Your task to perform on an android device: Go to network settings Image 0: 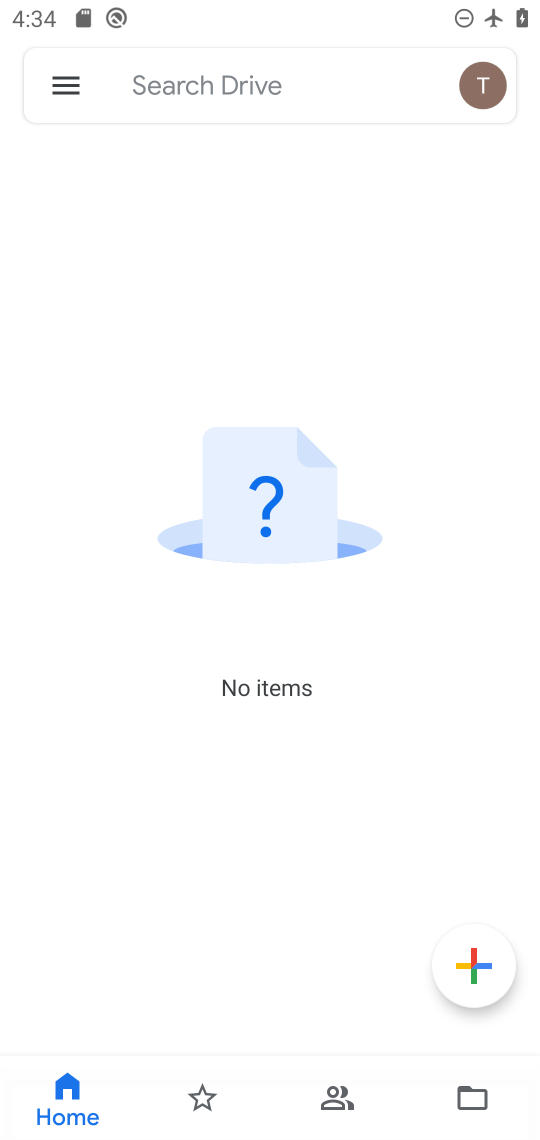
Step 0: press home button
Your task to perform on an android device: Go to network settings Image 1: 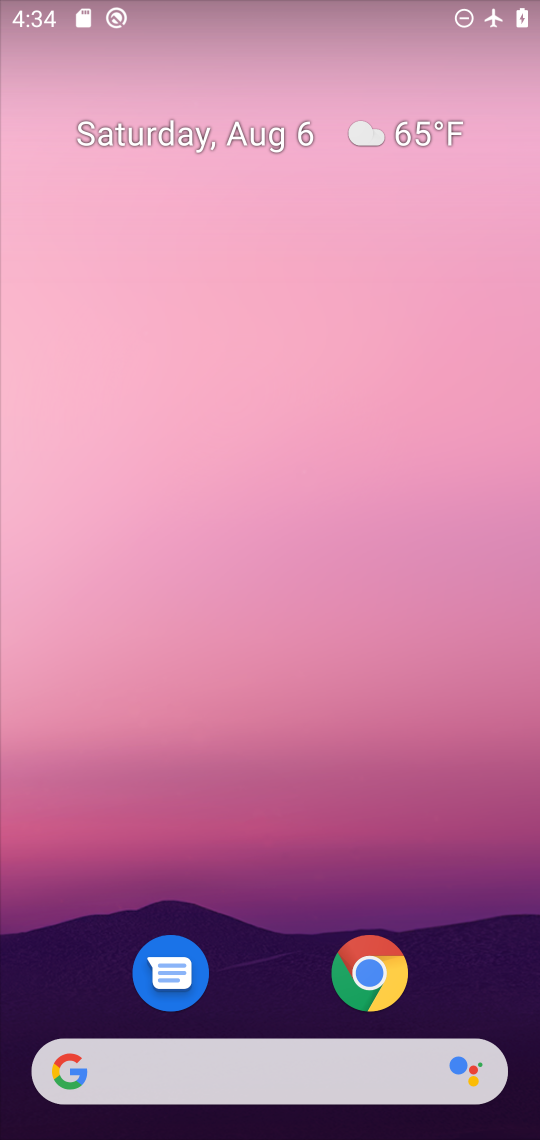
Step 1: drag from (270, 973) to (385, 174)
Your task to perform on an android device: Go to network settings Image 2: 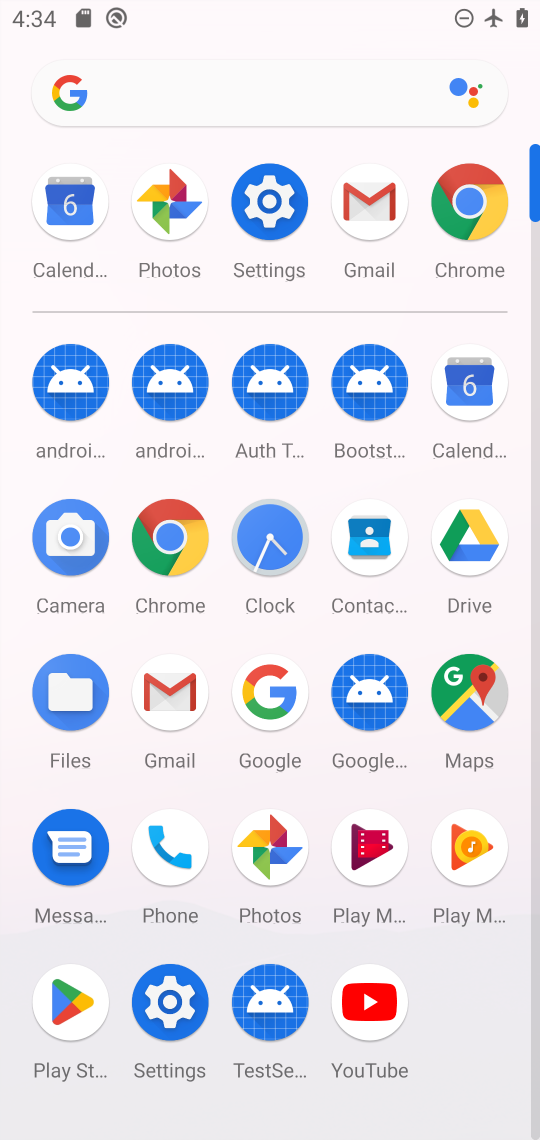
Step 2: click (149, 1000)
Your task to perform on an android device: Go to network settings Image 3: 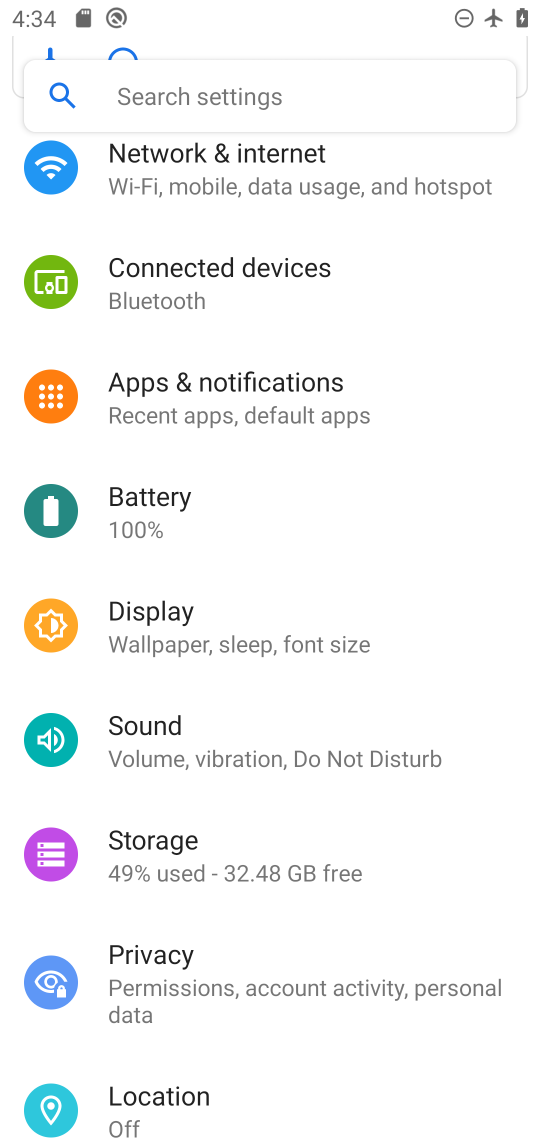
Step 3: click (166, 185)
Your task to perform on an android device: Go to network settings Image 4: 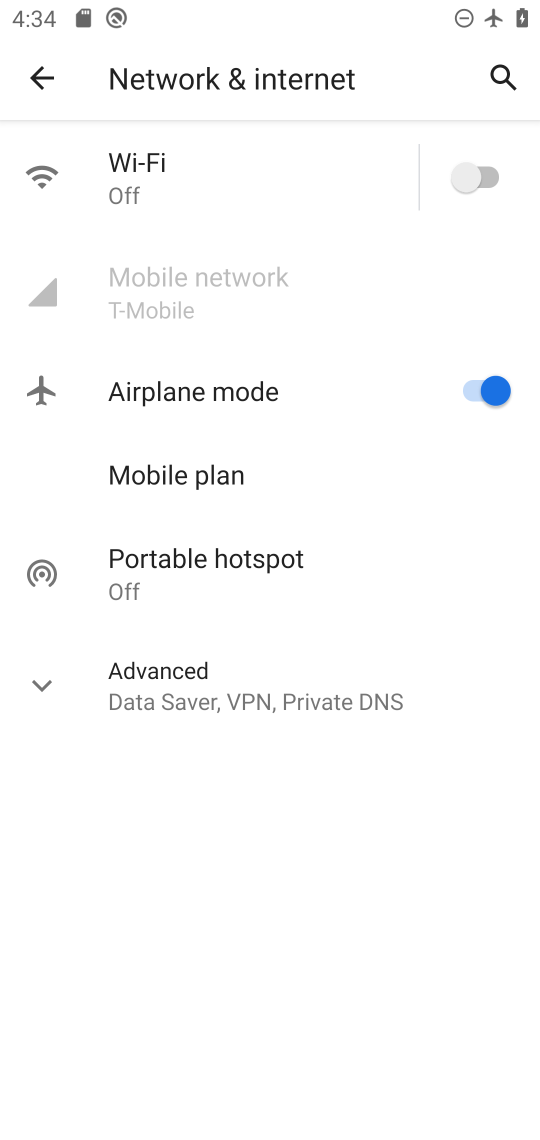
Step 4: task complete